Your task to perform on an android device: toggle sleep mode Image 0: 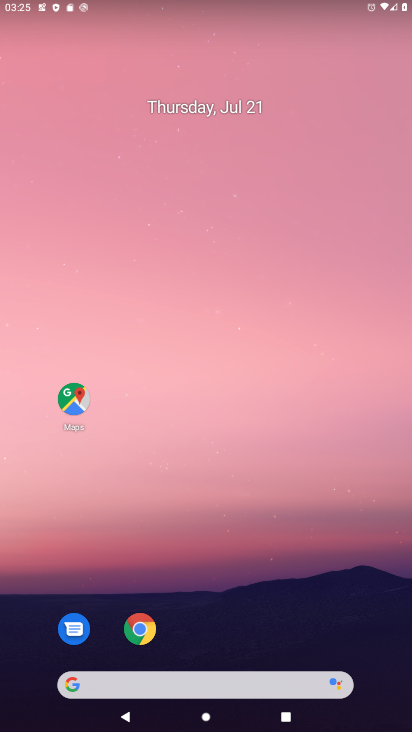
Step 0: drag from (269, 695) to (183, 114)
Your task to perform on an android device: toggle sleep mode Image 1: 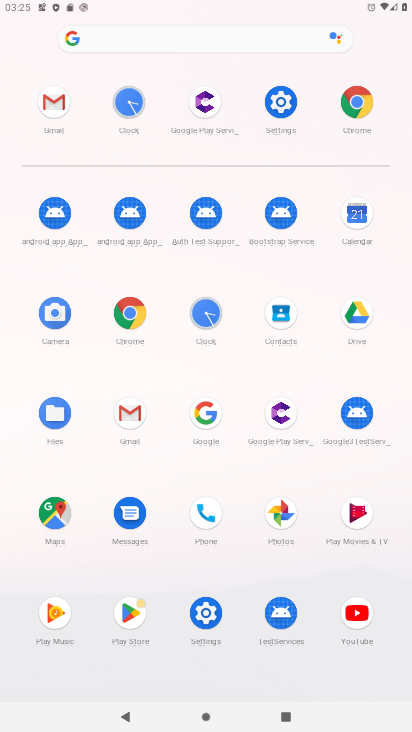
Step 1: click (282, 112)
Your task to perform on an android device: toggle sleep mode Image 2: 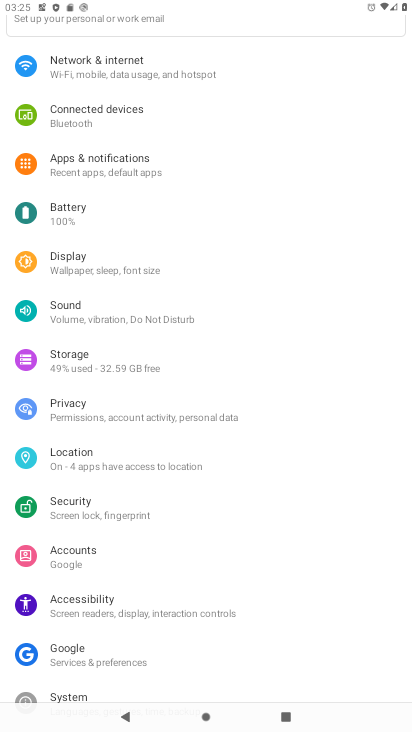
Step 2: click (80, 247)
Your task to perform on an android device: toggle sleep mode Image 3: 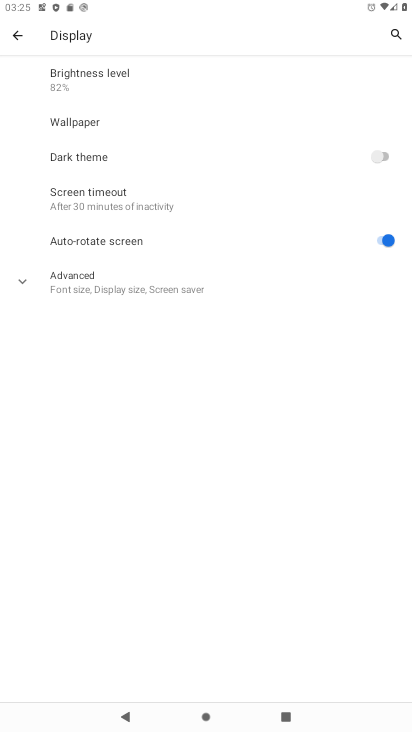
Step 3: task complete